Your task to perform on an android device: Open Wikipedia Image 0: 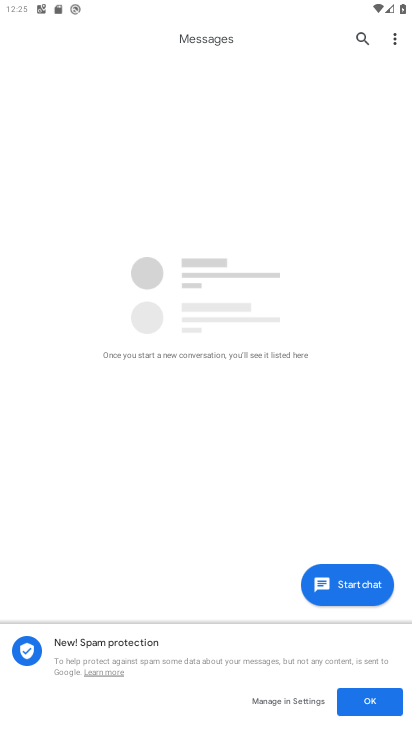
Step 0: press home button
Your task to perform on an android device: Open Wikipedia Image 1: 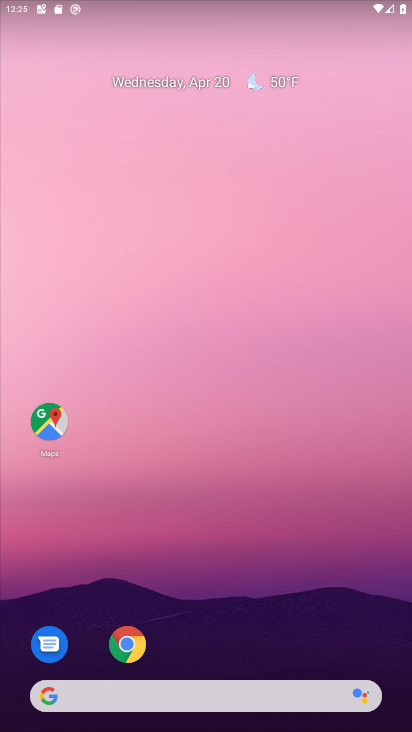
Step 1: click (129, 648)
Your task to perform on an android device: Open Wikipedia Image 2: 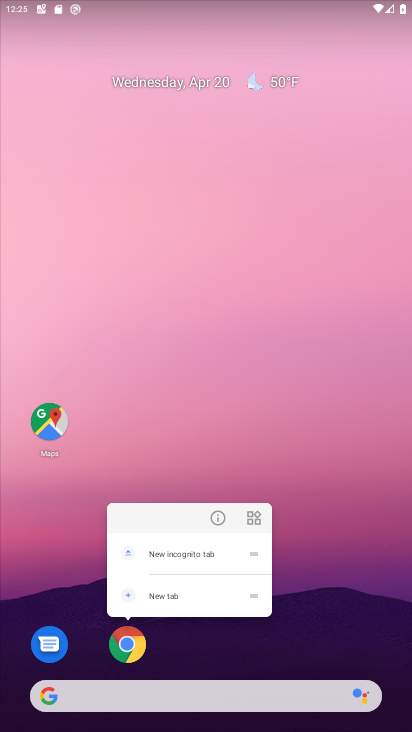
Step 2: click (124, 654)
Your task to perform on an android device: Open Wikipedia Image 3: 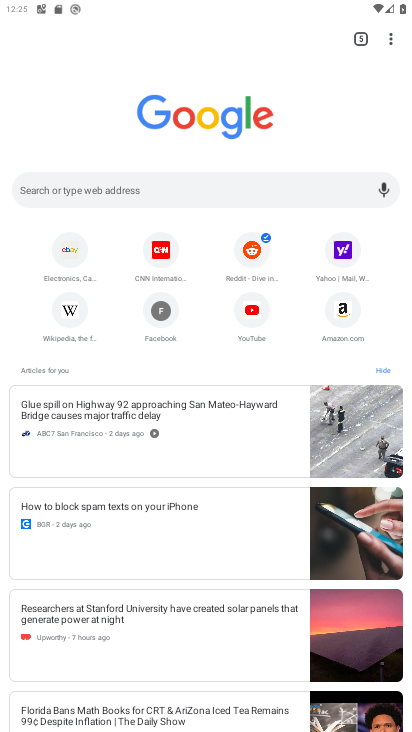
Step 3: click (65, 310)
Your task to perform on an android device: Open Wikipedia Image 4: 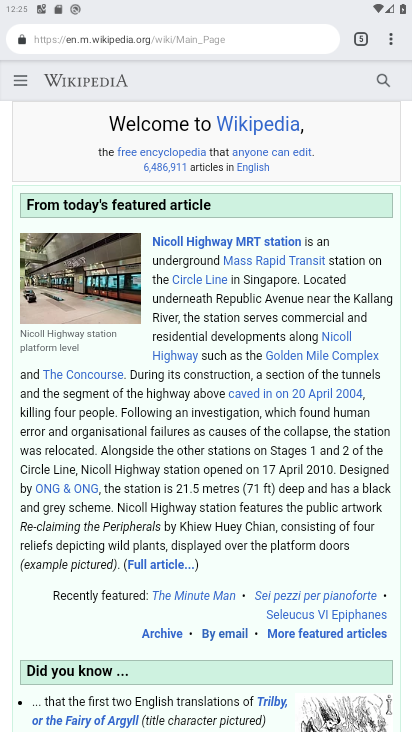
Step 4: task complete